Your task to perform on an android device: Open calendar and show me the second week of next month Image 0: 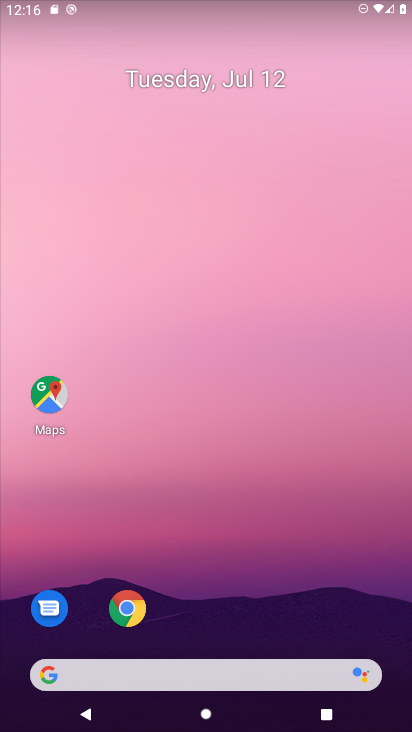
Step 0: drag from (211, 651) to (222, 31)
Your task to perform on an android device: Open calendar and show me the second week of next month Image 1: 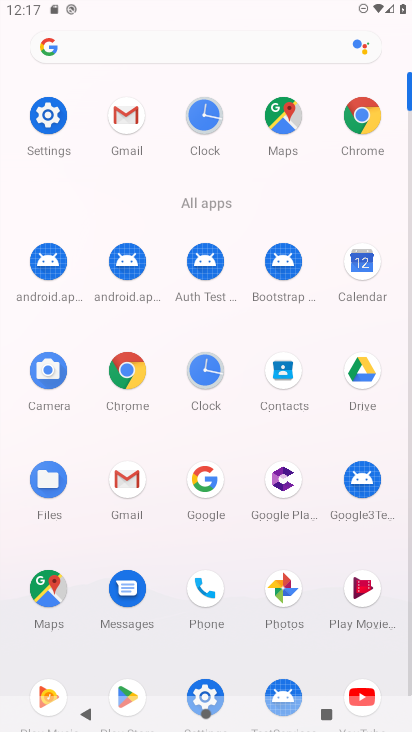
Step 1: click (354, 269)
Your task to perform on an android device: Open calendar and show me the second week of next month Image 2: 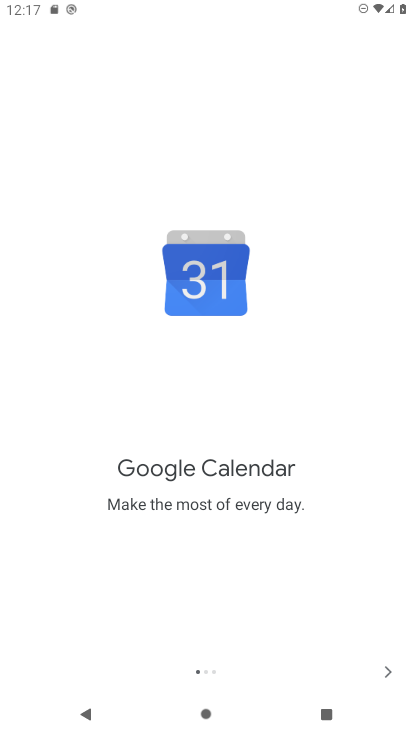
Step 2: click (394, 671)
Your task to perform on an android device: Open calendar and show me the second week of next month Image 3: 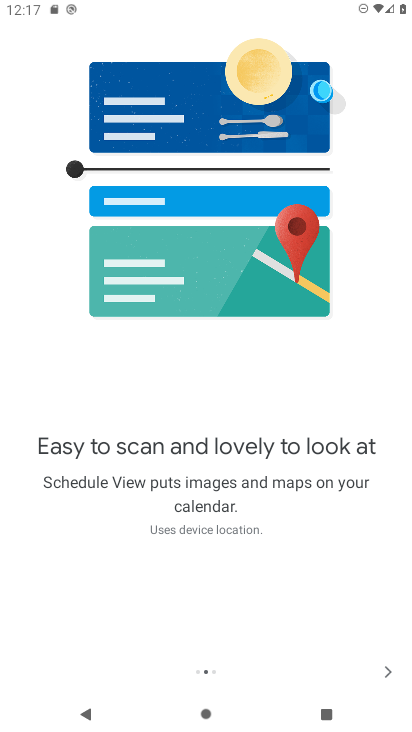
Step 3: click (388, 658)
Your task to perform on an android device: Open calendar and show me the second week of next month Image 4: 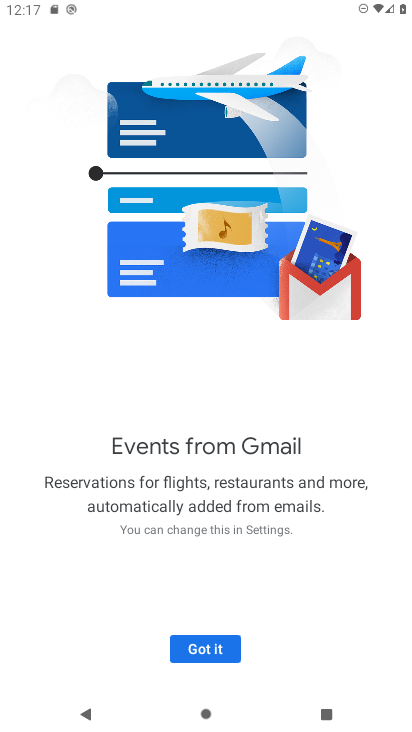
Step 4: click (194, 641)
Your task to perform on an android device: Open calendar and show me the second week of next month Image 5: 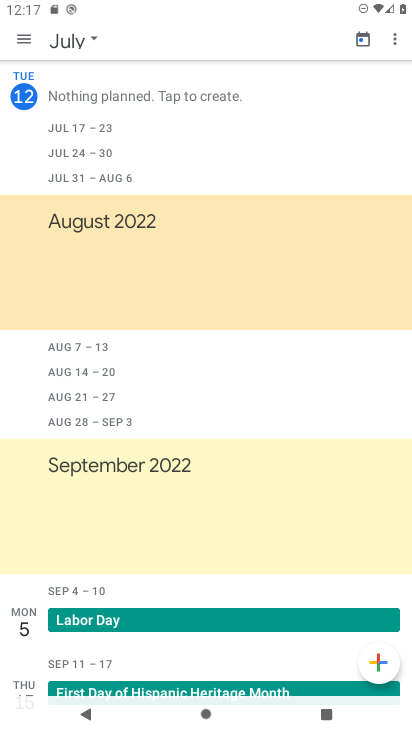
Step 5: click (17, 37)
Your task to perform on an android device: Open calendar and show me the second week of next month Image 6: 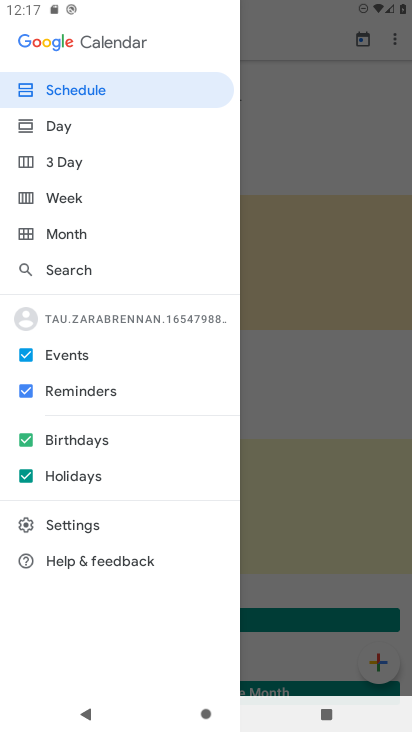
Step 6: click (61, 186)
Your task to perform on an android device: Open calendar and show me the second week of next month Image 7: 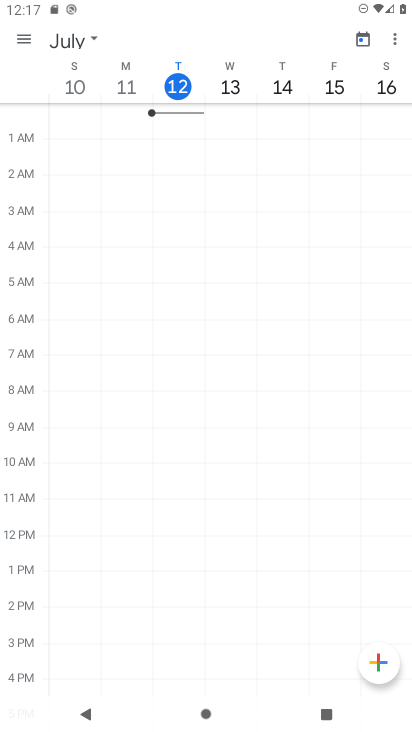
Step 7: task complete